Your task to perform on an android device: Play the last video I watched on Youtube Image 0: 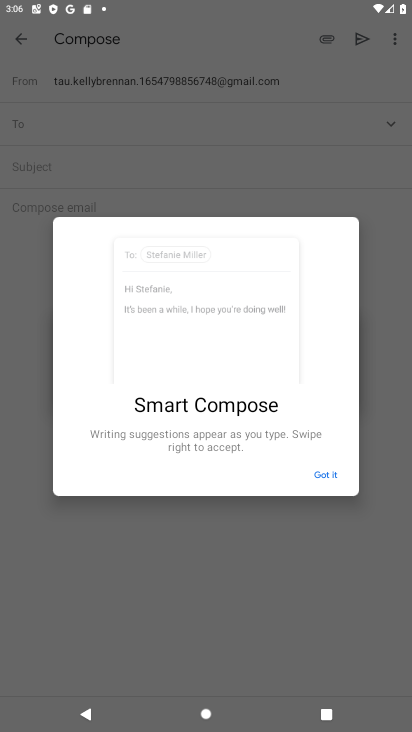
Step 0: press home button
Your task to perform on an android device: Play the last video I watched on Youtube Image 1: 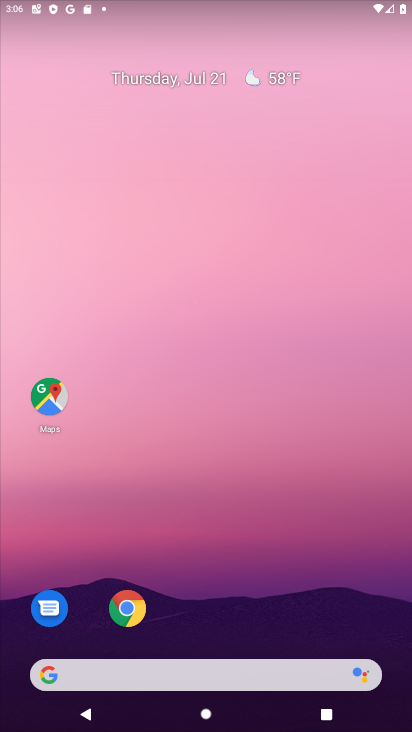
Step 1: drag from (225, 639) to (302, 45)
Your task to perform on an android device: Play the last video I watched on Youtube Image 2: 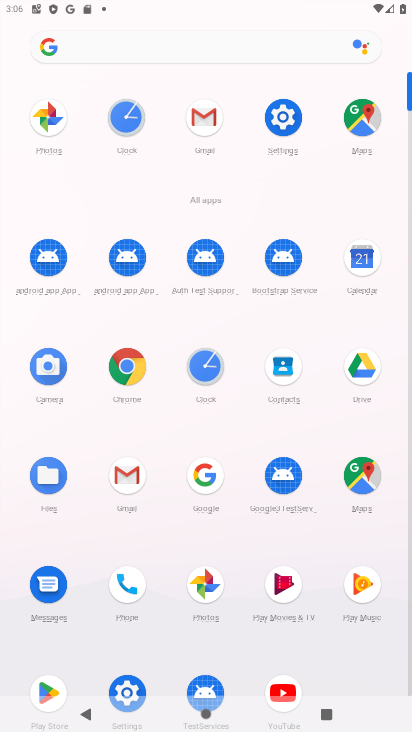
Step 2: click (284, 677)
Your task to perform on an android device: Play the last video I watched on Youtube Image 3: 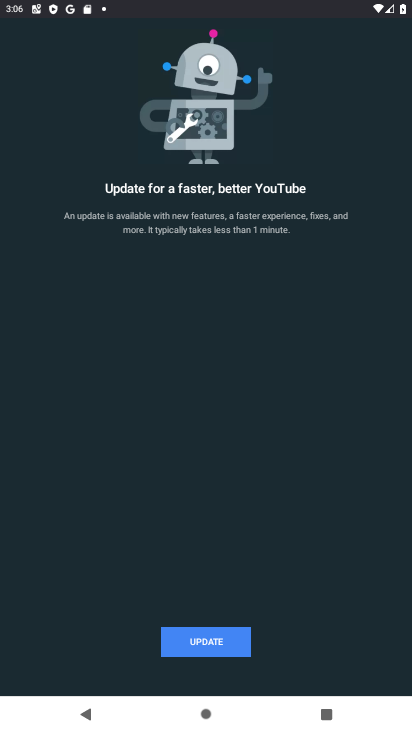
Step 3: click (205, 641)
Your task to perform on an android device: Play the last video I watched on Youtube Image 4: 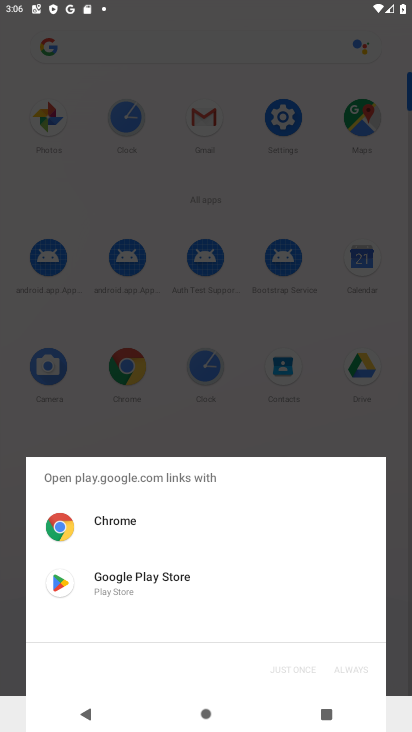
Step 4: click (105, 581)
Your task to perform on an android device: Play the last video I watched on Youtube Image 5: 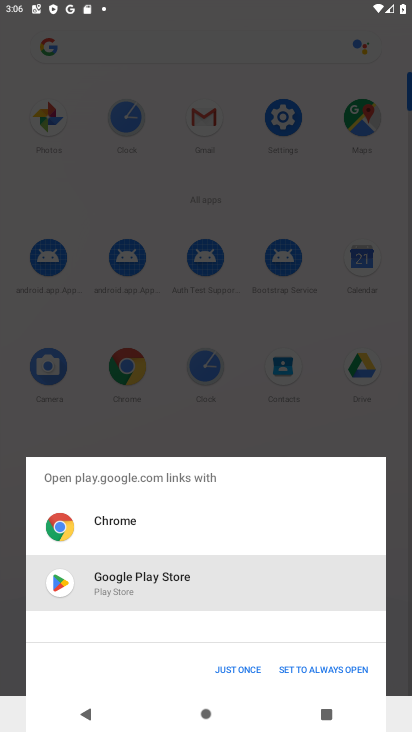
Step 5: click (228, 665)
Your task to perform on an android device: Play the last video I watched on Youtube Image 6: 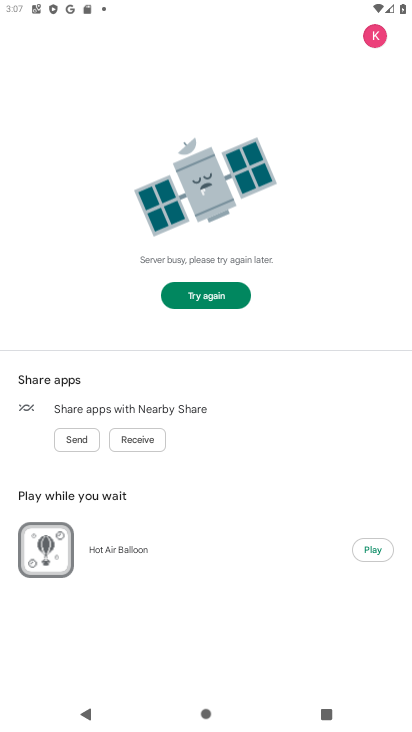
Step 6: click (207, 304)
Your task to perform on an android device: Play the last video I watched on Youtube Image 7: 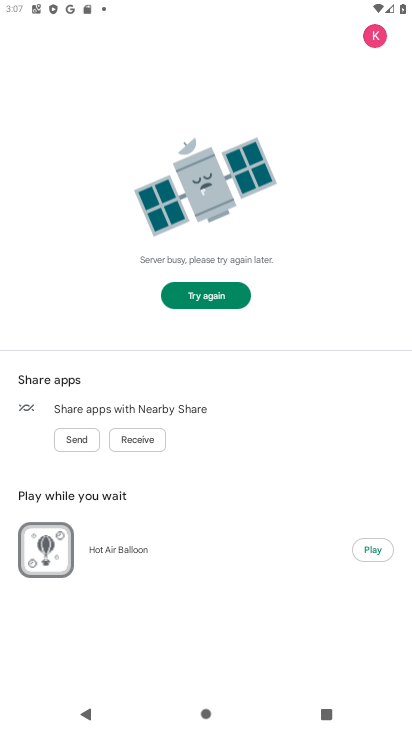
Step 7: task complete